Your task to perform on an android device: turn off sleep mode Image 0: 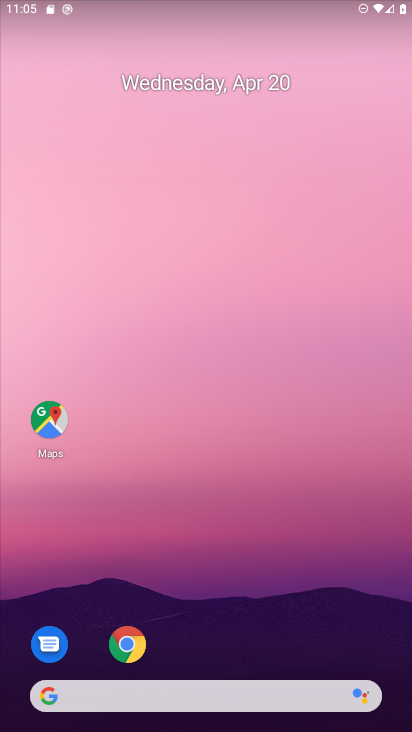
Step 0: drag from (311, 586) to (262, 52)
Your task to perform on an android device: turn off sleep mode Image 1: 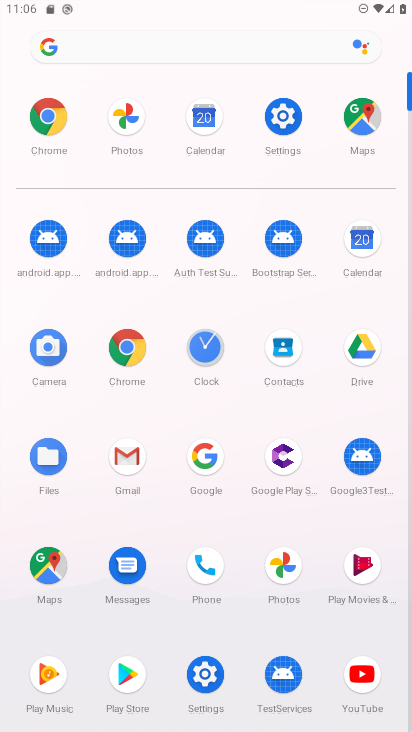
Step 1: click (285, 114)
Your task to perform on an android device: turn off sleep mode Image 2: 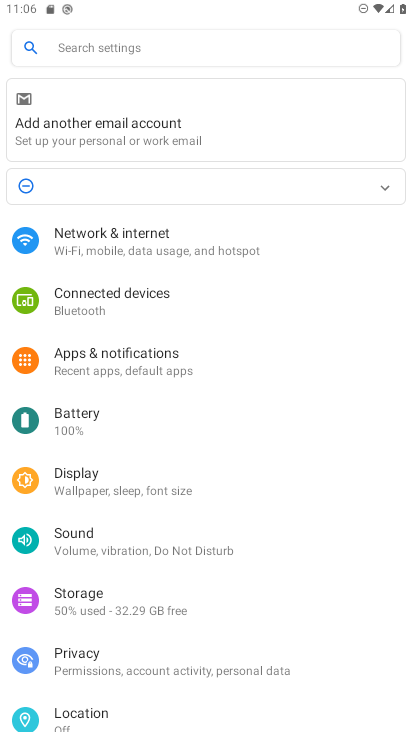
Step 2: task complete